Your task to perform on an android device: visit the assistant section in the google photos Image 0: 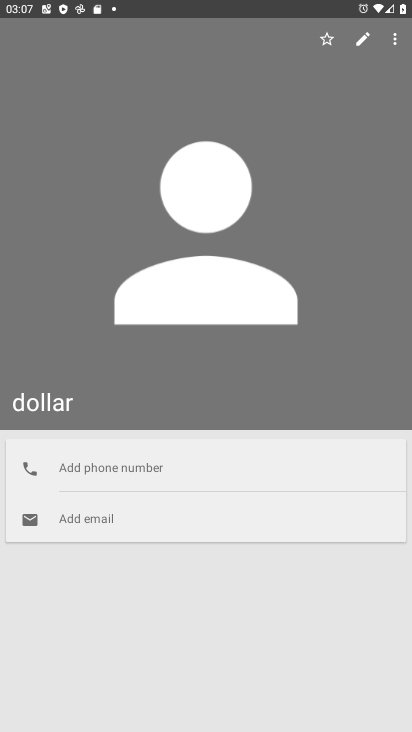
Step 0: press home button
Your task to perform on an android device: visit the assistant section in the google photos Image 1: 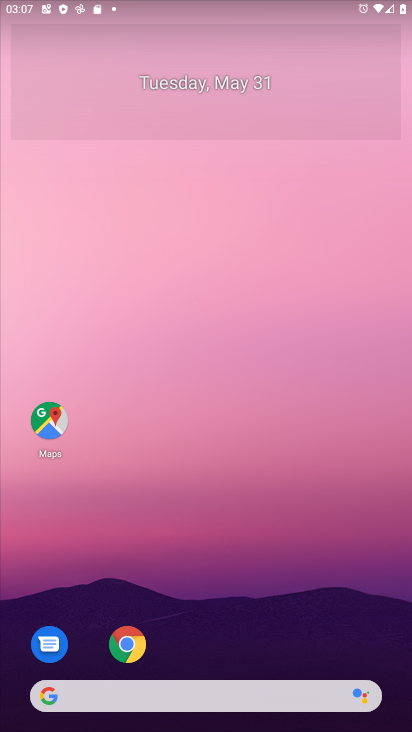
Step 1: drag from (312, 504) to (248, 131)
Your task to perform on an android device: visit the assistant section in the google photos Image 2: 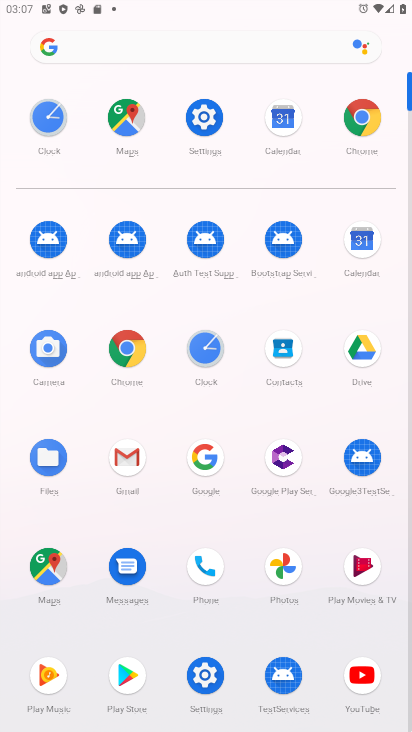
Step 2: click (287, 568)
Your task to perform on an android device: visit the assistant section in the google photos Image 3: 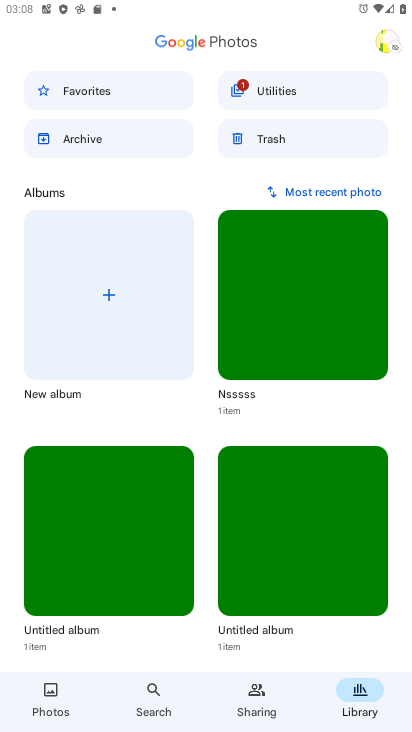
Step 3: task complete